Your task to perform on an android device: see tabs open on other devices in the chrome app Image 0: 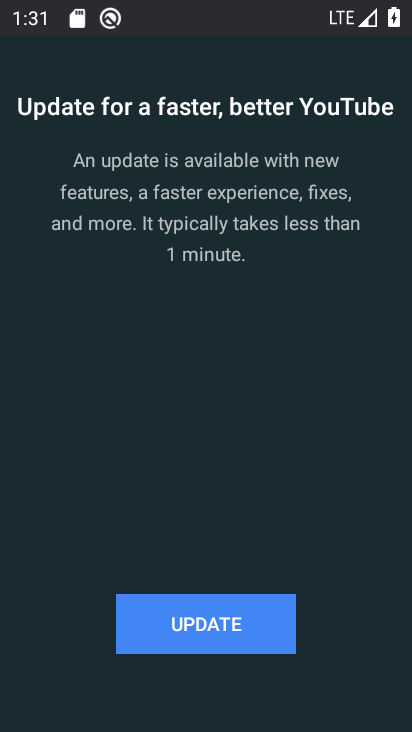
Step 0: press home button
Your task to perform on an android device: see tabs open on other devices in the chrome app Image 1: 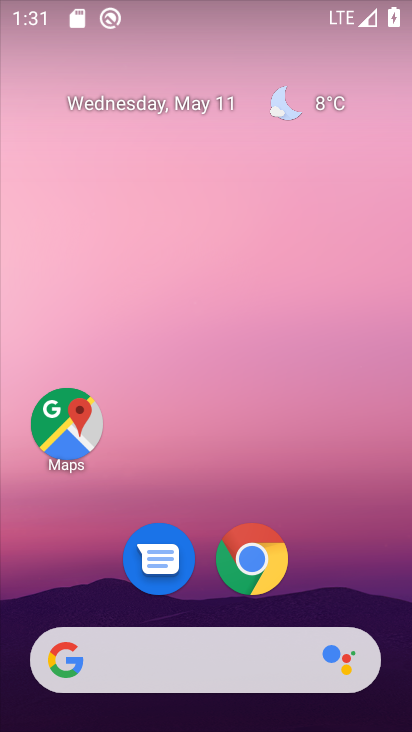
Step 1: click (253, 563)
Your task to perform on an android device: see tabs open on other devices in the chrome app Image 2: 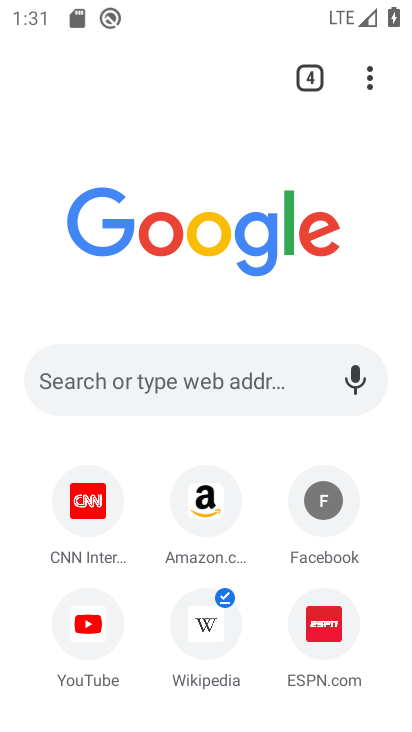
Step 2: click (370, 86)
Your task to perform on an android device: see tabs open on other devices in the chrome app Image 3: 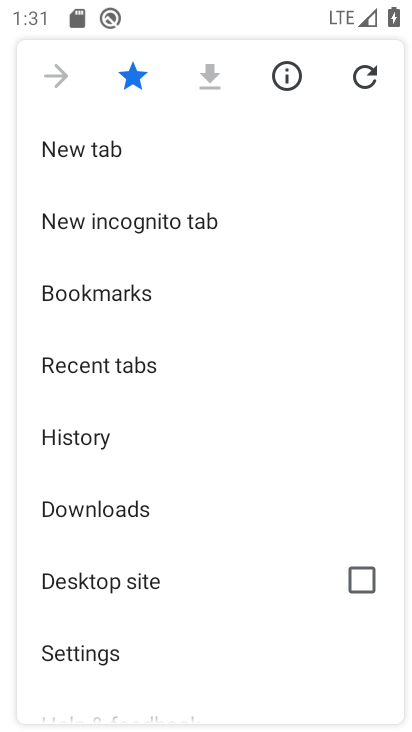
Step 3: click (110, 367)
Your task to perform on an android device: see tabs open on other devices in the chrome app Image 4: 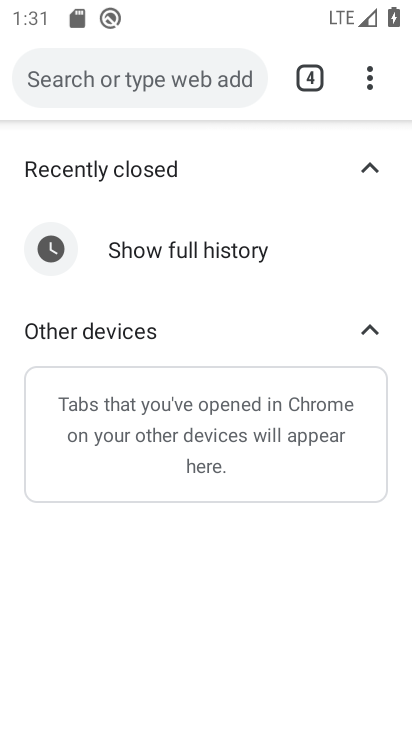
Step 4: task complete